Your task to perform on an android device: Search for macbook pro 13 inch on amazon, select the first entry, and add it to the cart. Image 0: 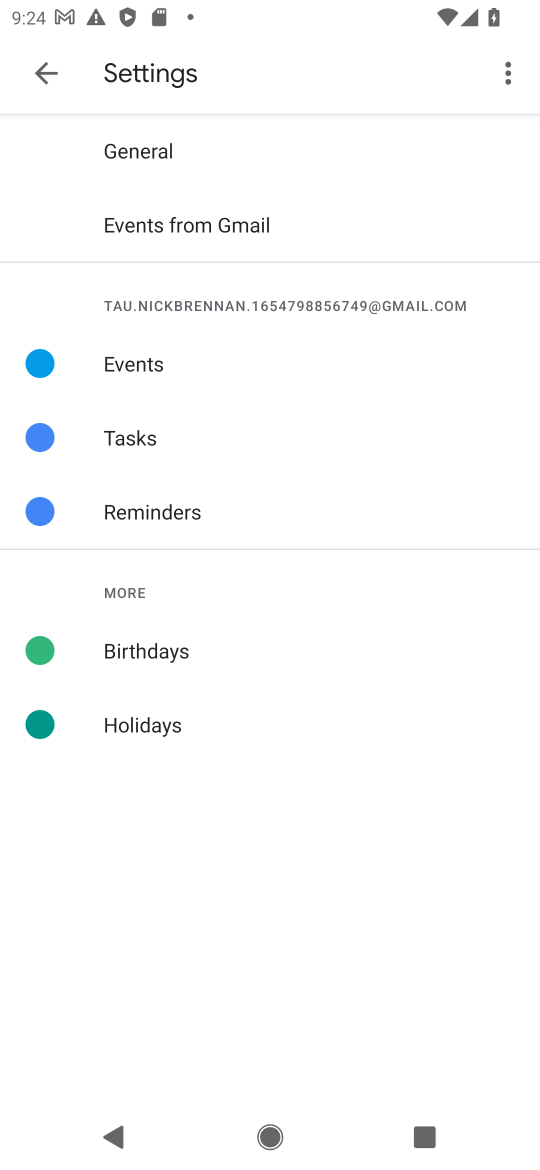
Step 0: press home button
Your task to perform on an android device: Search for macbook pro 13 inch on amazon, select the first entry, and add it to the cart. Image 1: 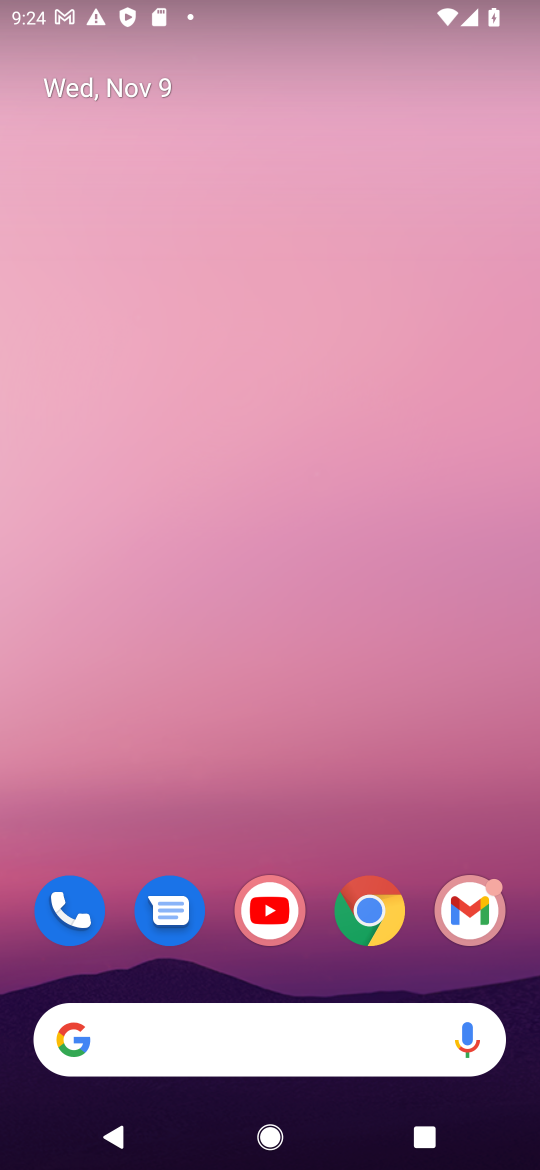
Step 1: click (358, 906)
Your task to perform on an android device: Search for macbook pro 13 inch on amazon, select the first entry, and add it to the cart. Image 2: 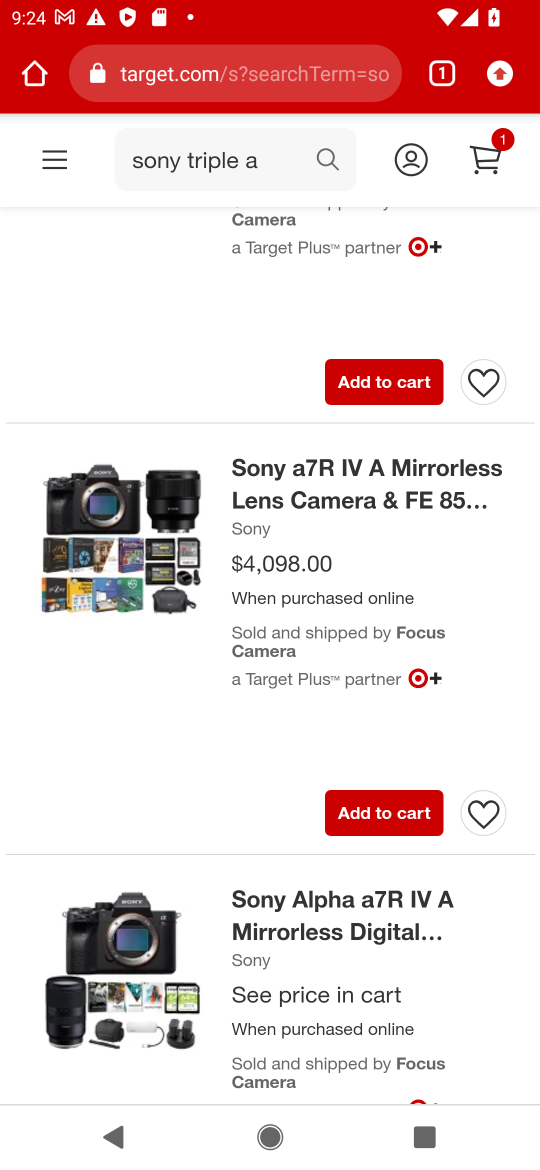
Step 2: click (228, 77)
Your task to perform on an android device: Search for macbook pro 13 inch on amazon, select the first entry, and add it to the cart. Image 3: 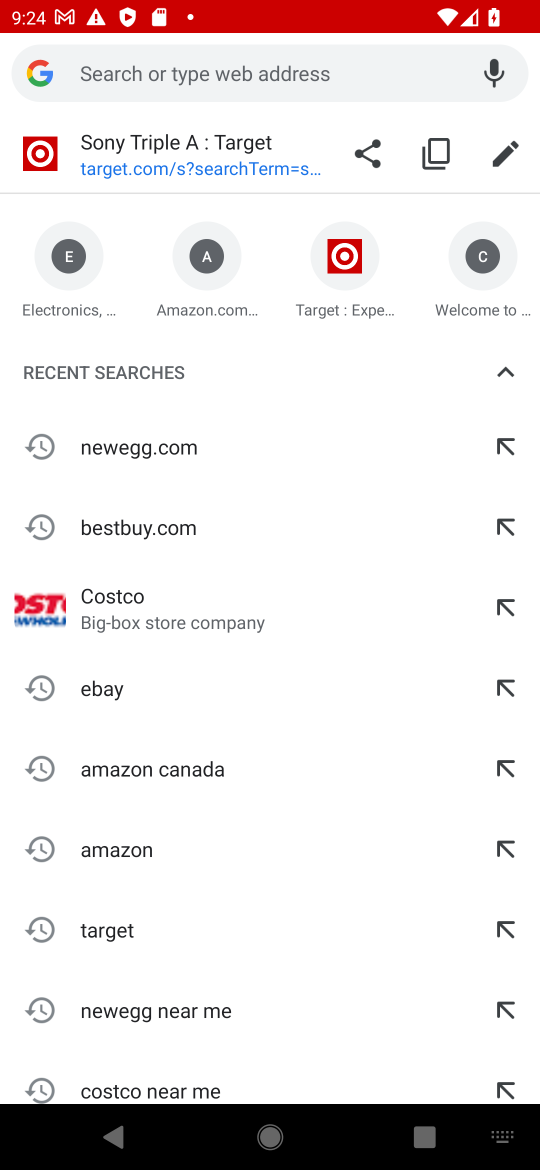
Step 3: click (209, 298)
Your task to perform on an android device: Search for macbook pro 13 inch on amazon, select the first entry, and add it to the cart. Image 4: 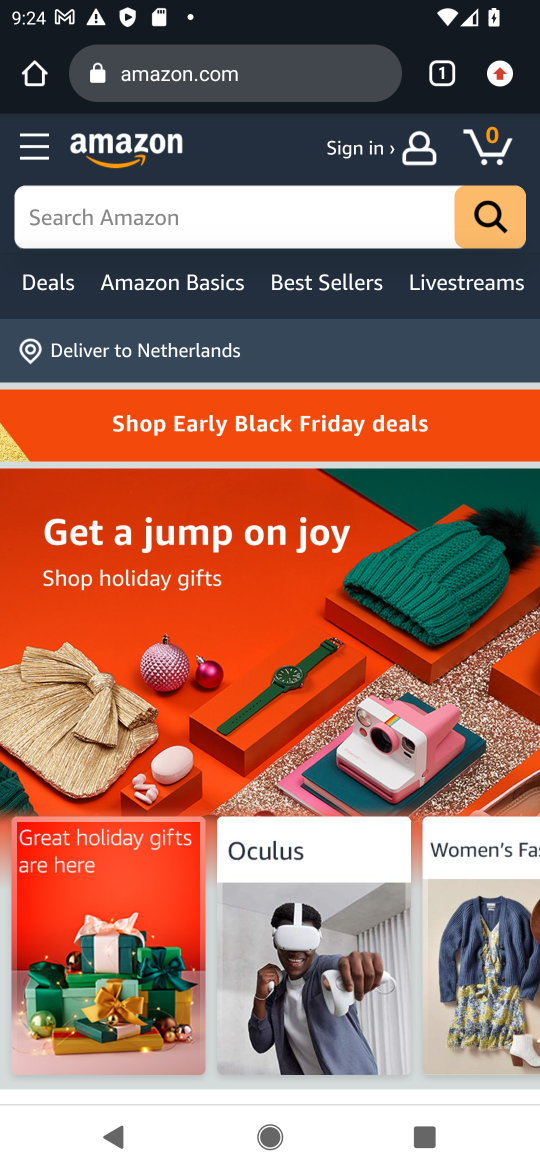
Step 4: click (117, 229)
Your task to perform on an android device: Search for macbook pro 13 inch on amazon, select the first entry, and add it to the cart. Image 5: 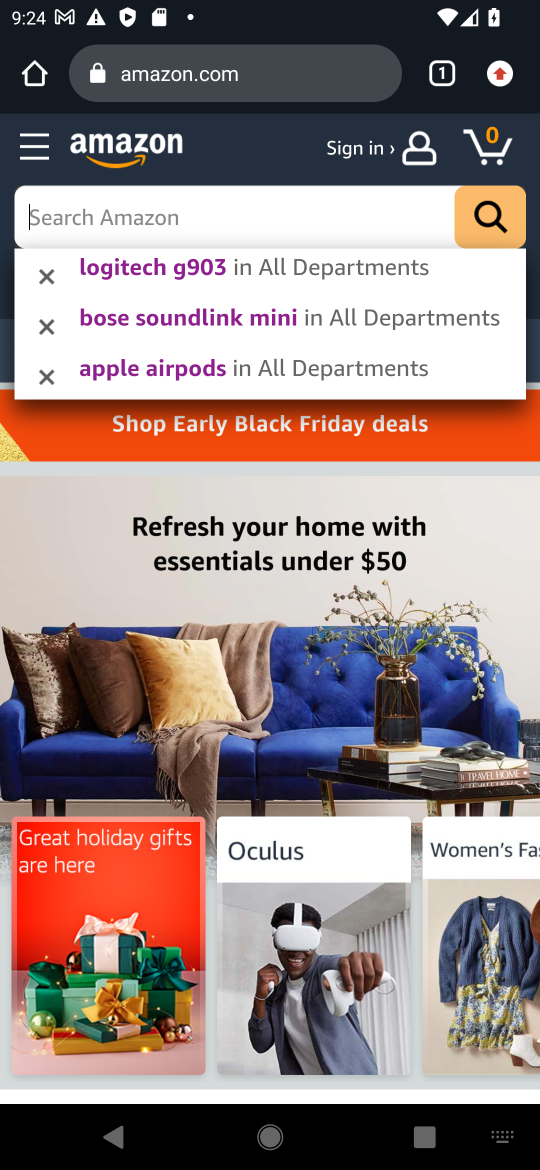
Step 5: type "macbook pro 13 inch"
Your task to perform on an android device: Search for macbook pro 13 inch on amazon, select the first entry, and add it to the cart. Image 6: 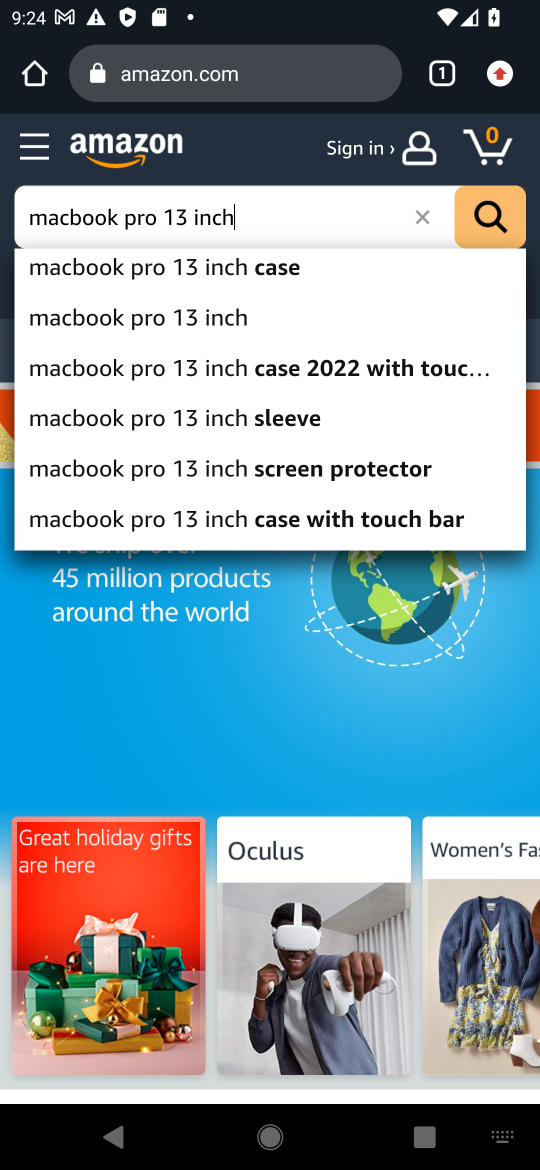
Step 6: click (234, 325)
Your task to perform on an android device: Search for macbook pro 13 inch on amazon, select the first entry, and add it to the cart. Image 7: 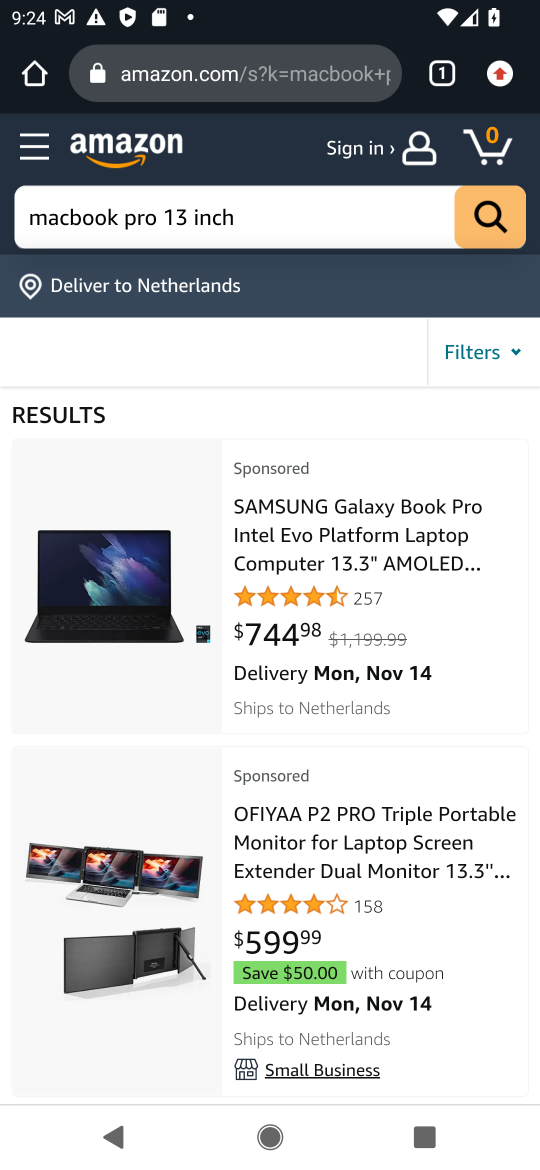
Step 7: task complete